Your task to perform on an android device: read, delete, or share a saved page in the chrome app Image 0: 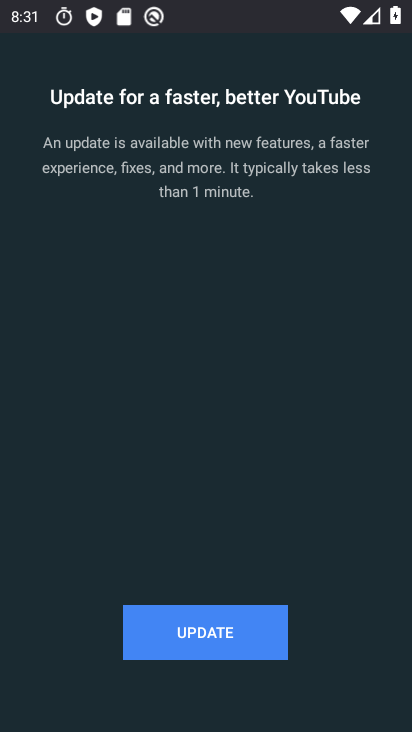
Step 0: press back button
Your task to perform on an android device: read, delete, or share a saved page in the chrome app Image 1: 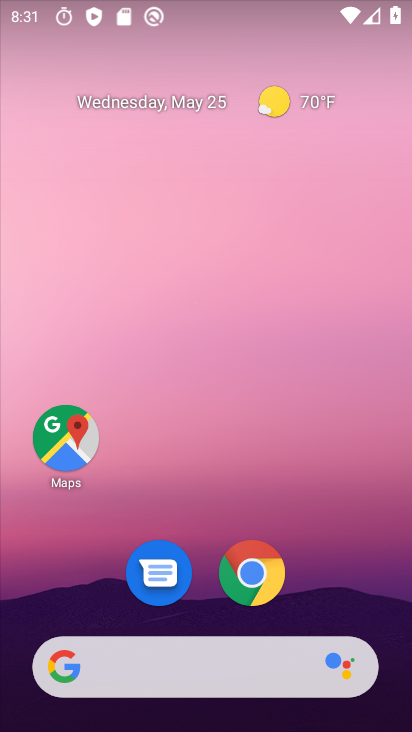
Step 1: click (272, 581)
Your task to perform on an android device: read, delete, or share a saved page in the chrome app Image 2: 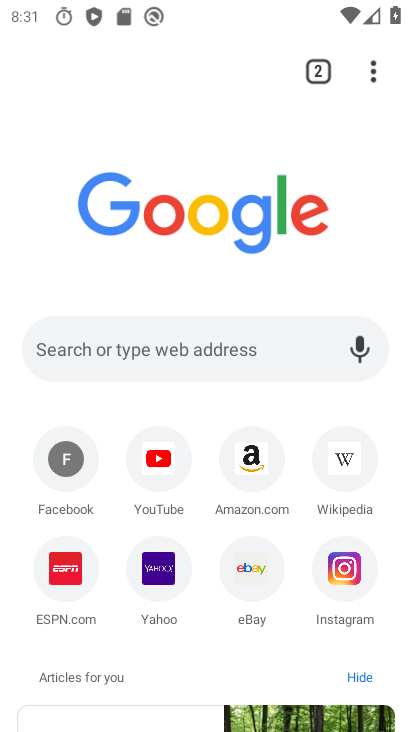
Step 2: click (386, 76)
Your task to perform on an android device: read, delete, or share a saved page in the chrome app Image 3: 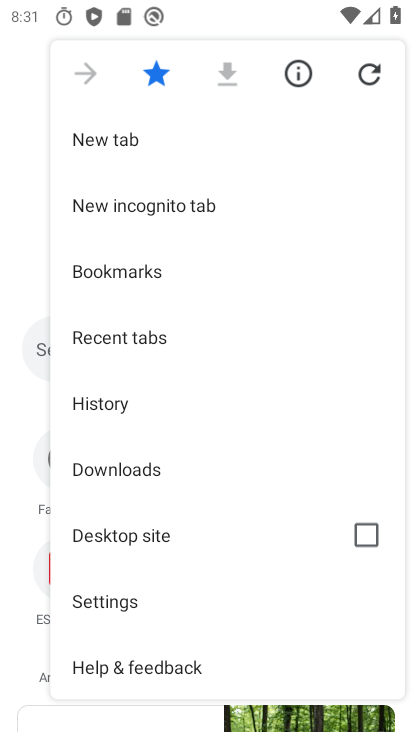
Step 3: click (143, 469)
Your task to perform on an android device: read, delete, or share a saved page in the chrome app Image 4: 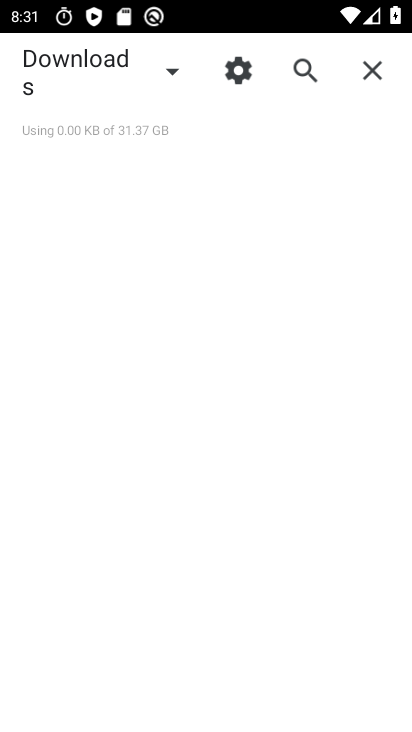
Step 4: click (154, 60)
Your task to perform on an android device: read, delete, or share a saved page in the chrome app Image 5: 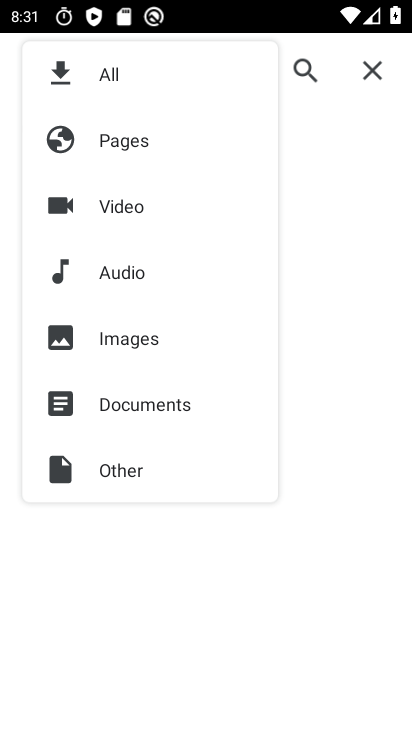
Step 5: click (148, 134)
Your task to perform on an android device: read, delete, or share a saved page in the chrome app Image 6: 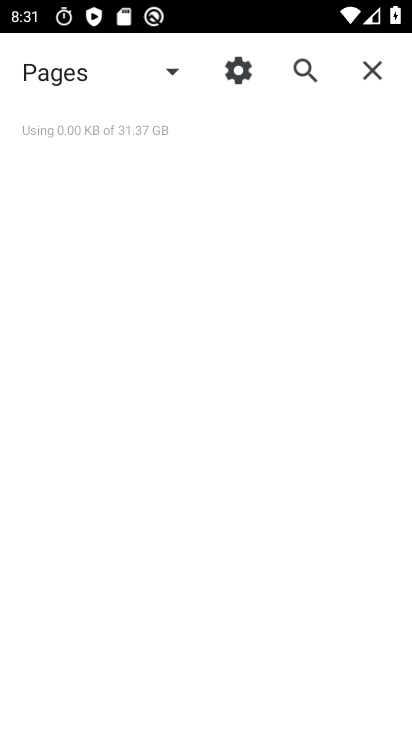
Step 6: task complete